Your task to perform on an android device: Go to sound settings Image 0: 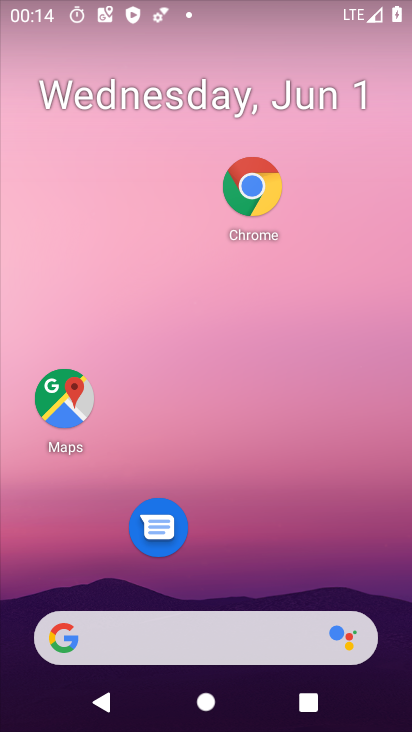
Step 0: click (178, 102)
Your task to perform on an android device: Go to sound settings Image 1: 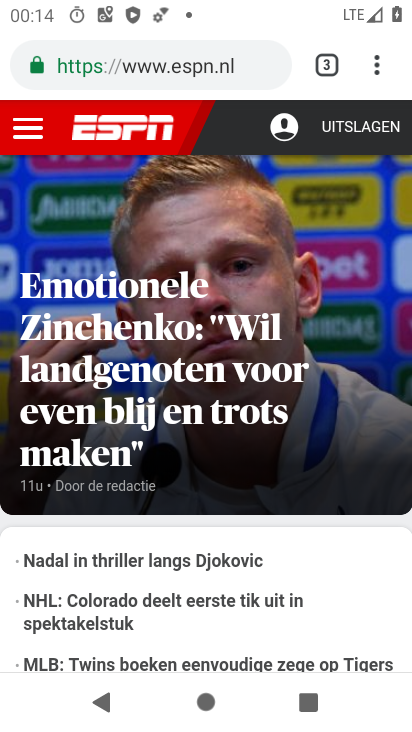
Step 1: drag from (198, 567) to (192, 152)
Your task to perform on an android device: Go to sound settings Image 2: 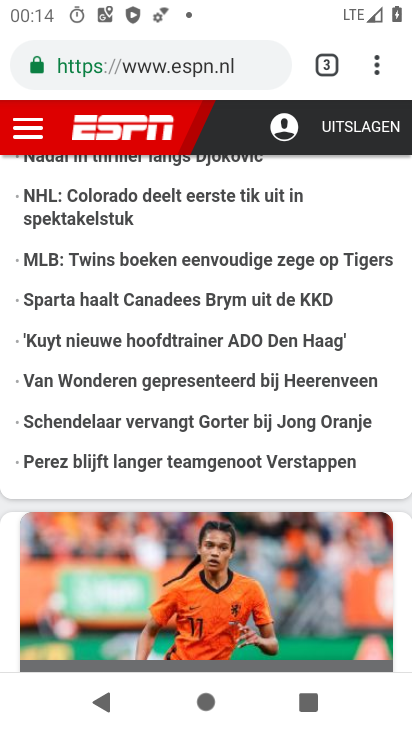
Step 2: drag from (172, 252) to (325, 715)
Your task to perform on an android device: Go to sound settings Image 3: 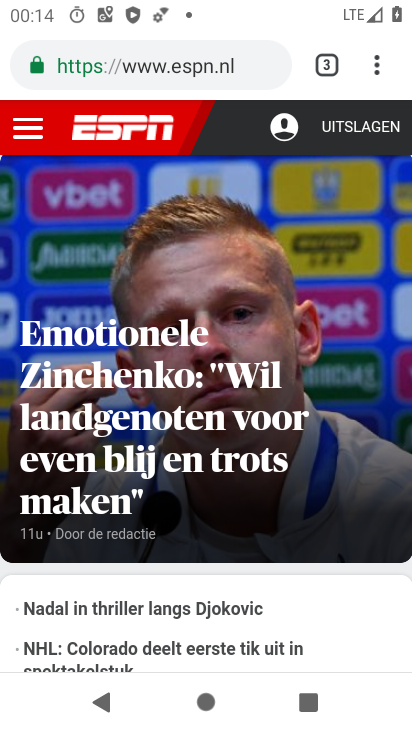
Step 3: drag from (381, 67) to (157, 573)
Your task to perform on an android device: Go to sound settings Image 4: 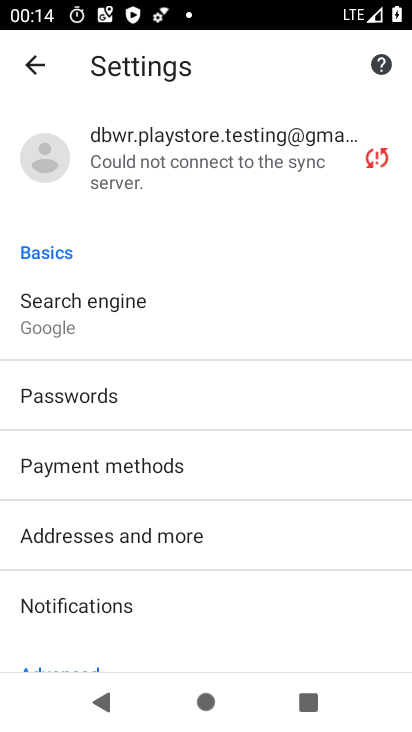
Step 4: drag from (167, 359) to (304, 34)
Your task to perform on an android device: Go to sound settings Image 5: 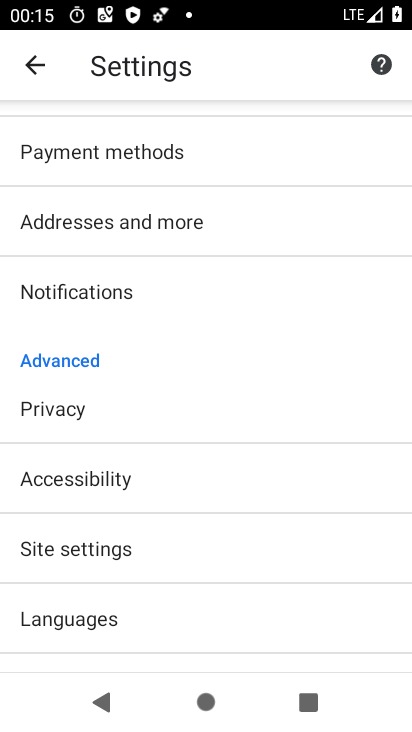
Step 5: press home button
Your task to perform on an android device: Go to sound settings Image 6: 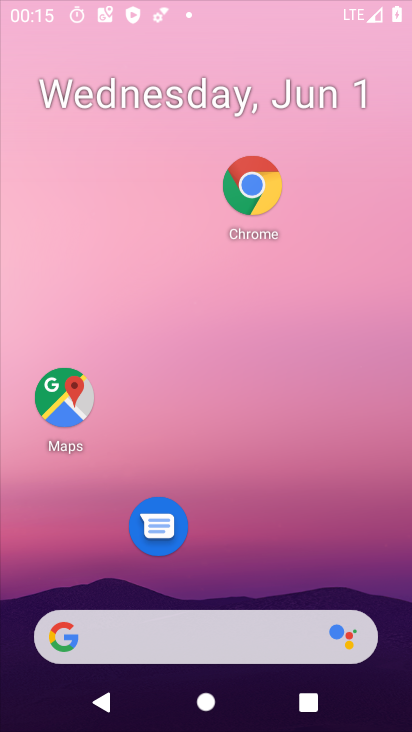
Step 6: drag from (168, 607) to (283, 101)
Your task to perform on an android device: Go to sound settings Image 7: 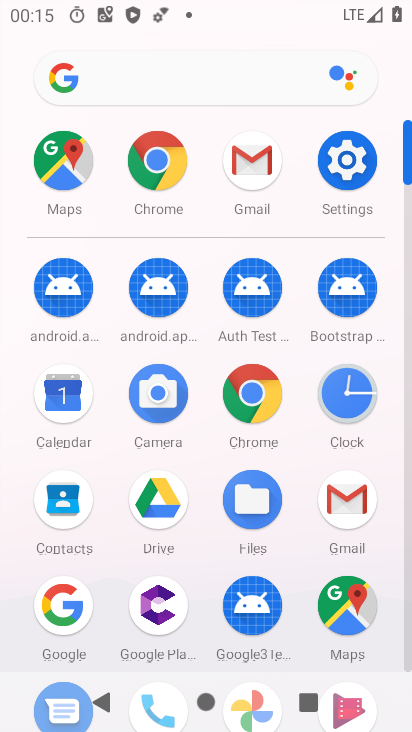
Step 7: click (349, 171)
Your task to perform on an android device: Go to sound settings Image 8: 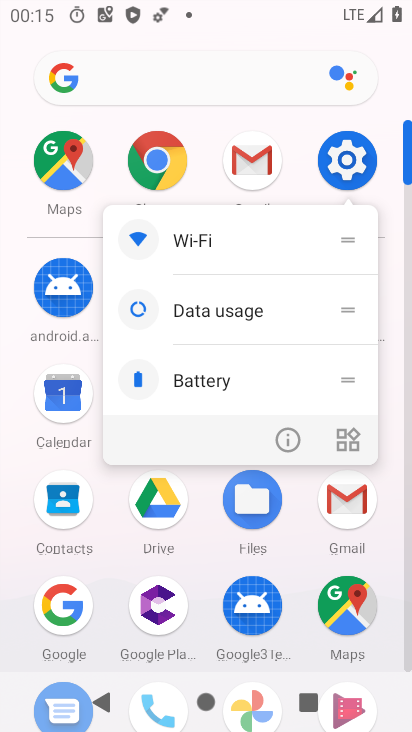
Step 8: click (299, 443)
Your task to perform on an android device: Go to sound settings Image 9: 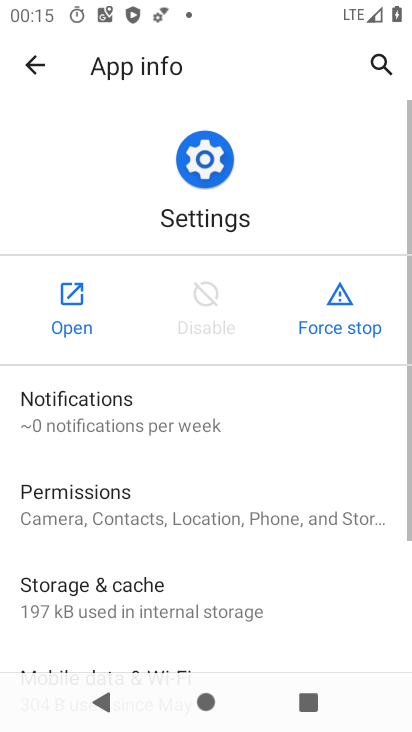
Step 9: click (73, 312)
Your task to perform on an android device: Go to sound settings Image 10: 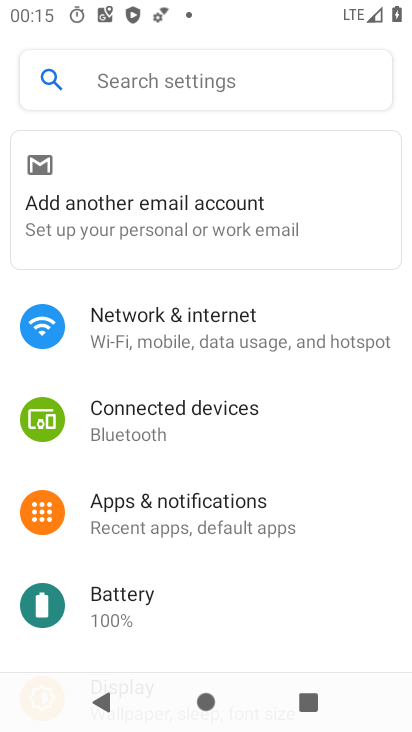
Step 10: drag from (160, 568) to (199, 105)
Your task to perform on an android device: Go to sound settings Image 11: 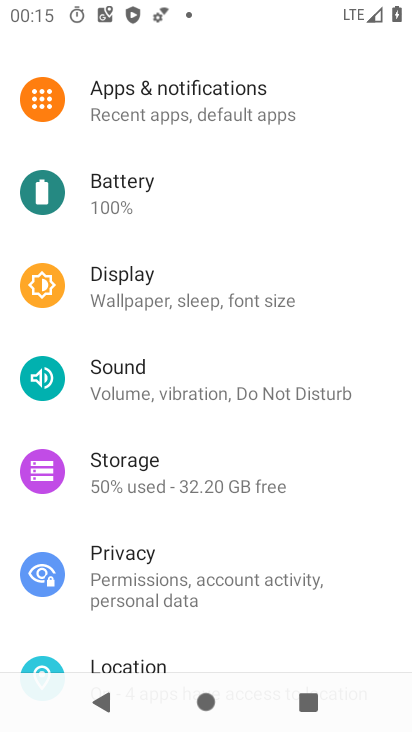
Step 11: drag from (210, 577) to (273, 151)
Your task to perform on an android device: Go to sound settings Image 12: 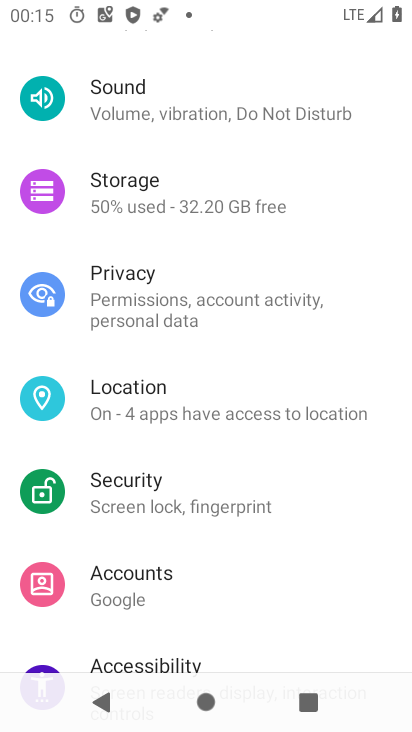
Step 12: click (184, 110)
Your task to perform on an android device: Go to sound settings Image 13: 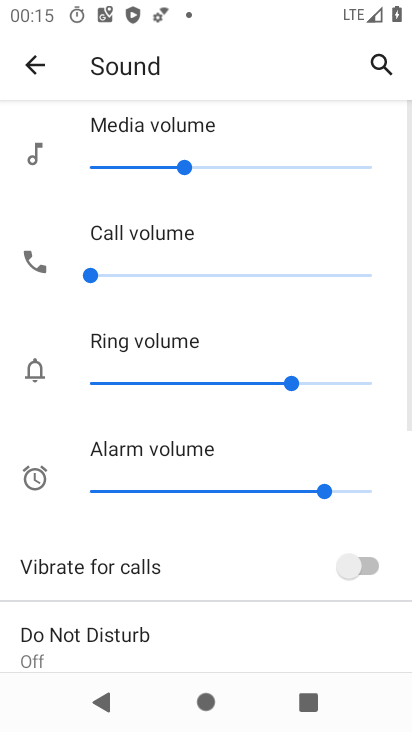
Step 13: task complete